Your task to perform on an android device: Go to accessibility settings Image 0: 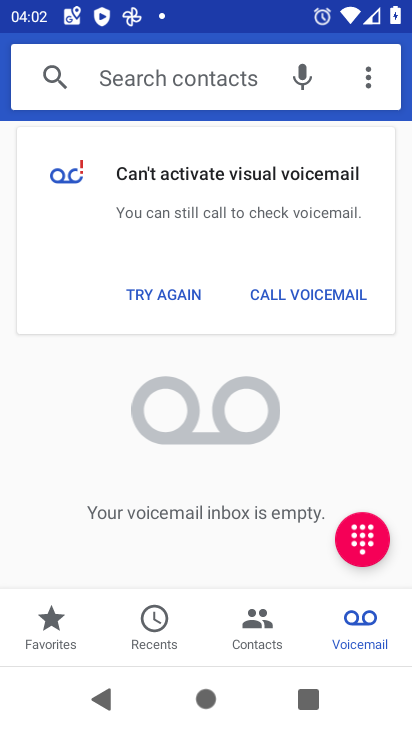
Step 0: press home button
Your task to perform on an android device: Go to accessibility settings Image 1: 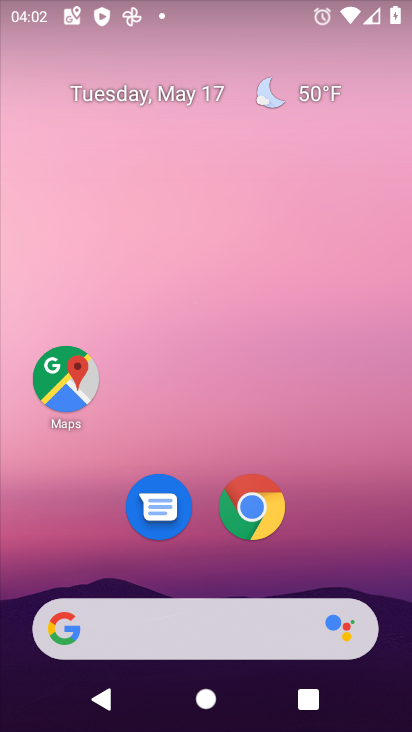
Step 1: drag from (292, 562) to (230, 83)
Your task to perform on an android device: Go to accessibility settings Image 2: 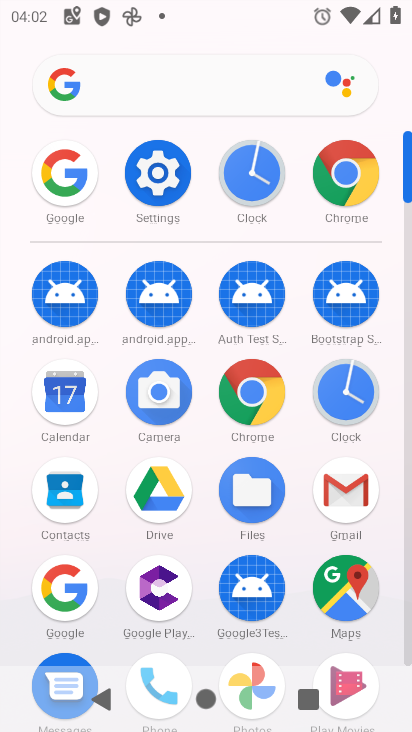
Step 2: click (160, 190)
Your task to perform on an android device: Go to accessibility settings Image 3: 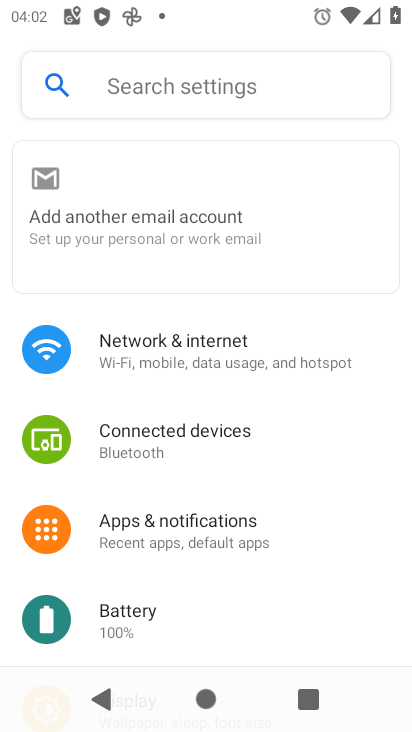
Step 3: drag from (241, 567) to (273, 128)
Your task to perform on an android device: Go to accessibility settings Image 4: 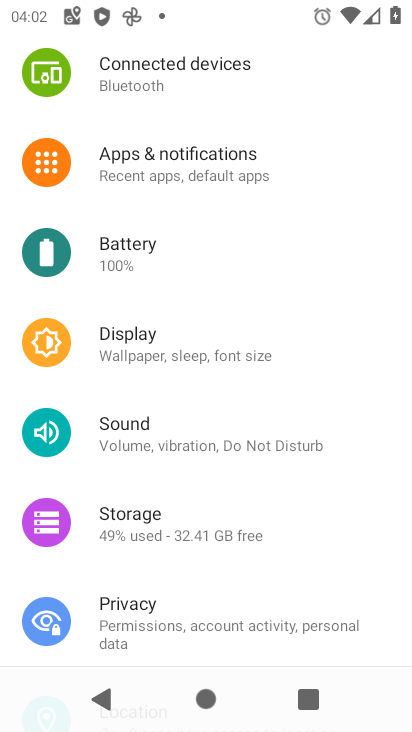
Step 4: drag from (204, 521) to (248, 130)
Your task to perform on an android device: Go to accessibility settings Image 5: 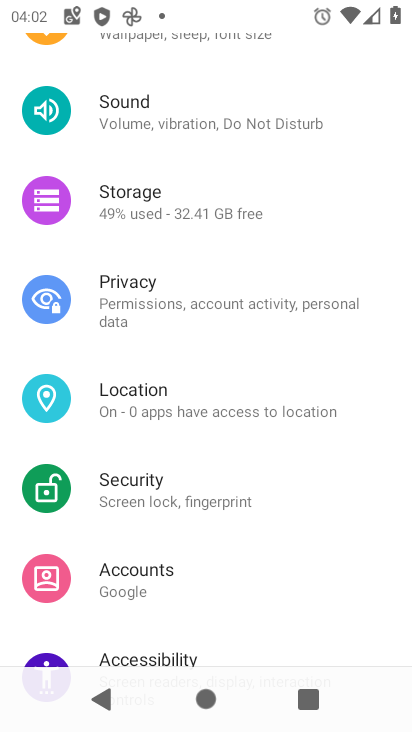
Step 5: click (188, 646)
Your task to perform on an android device: Go to accessibility settings Image 6: 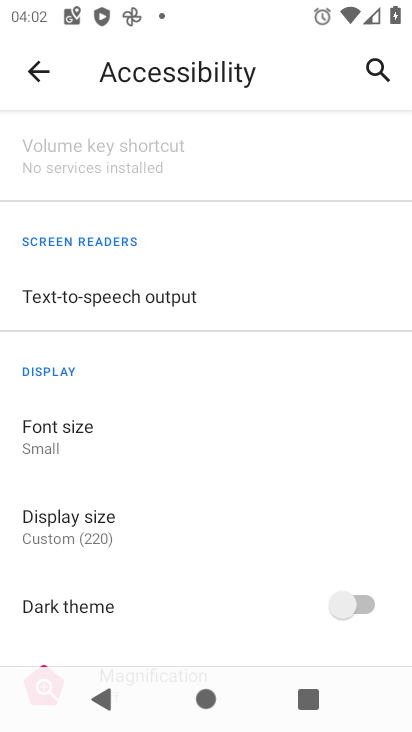
Step 6: task complete